Your task to perform on an android device: turn off notifications settings in the gmail app Image 0: 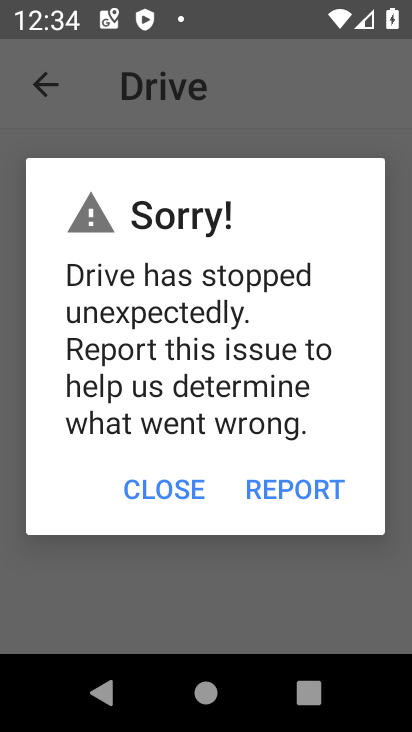
Step 0: press home button
Your task to perform on an android device: turn off notifications settings in the gmail app Image 1: 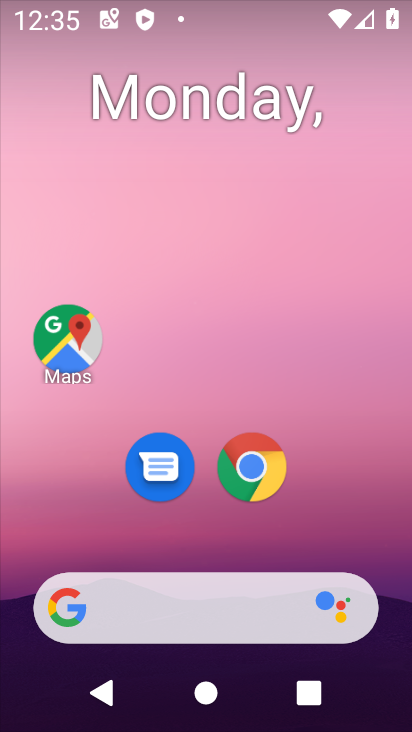
Step 1: drag from (396, 594) to (354, 97)
Your task to perform on an android device: turn off notifications settings in the gmail app Image 2: 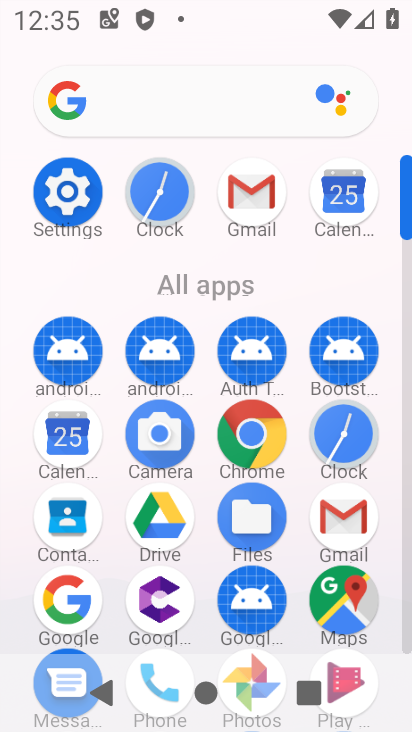
Step 2: click (404, 629)
Your task to perform on an android device: turn off notifications settings in the gmail app Image 3: 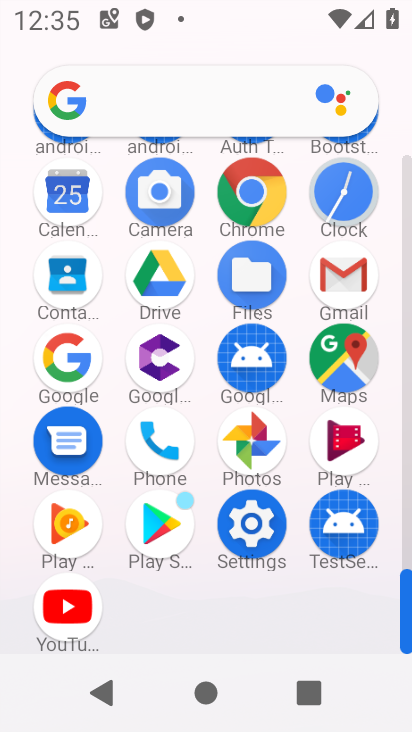
Step 3: click (341, 275)
Your task to perform on an android device: turn off notifications settings in the gmail app Image 4: 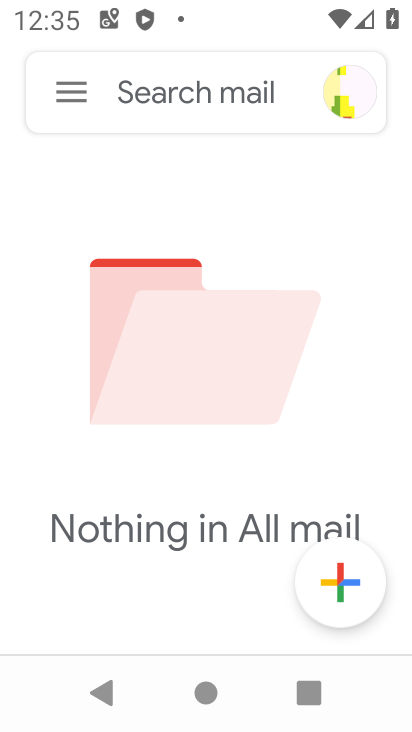
Step 4: click (71, 92)
Your task to perform on an android device: turn off notifications settings in the gmail app Image 5: 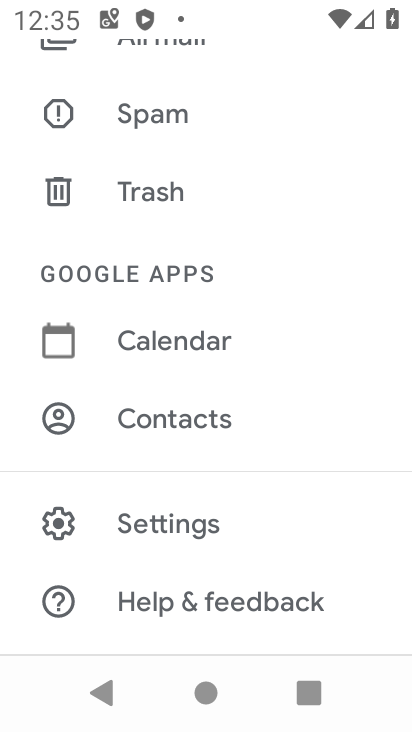
Step 5: click (140, 519)
Your task to perform on an android device: turn off notifications settings in the gmail app Image 6: 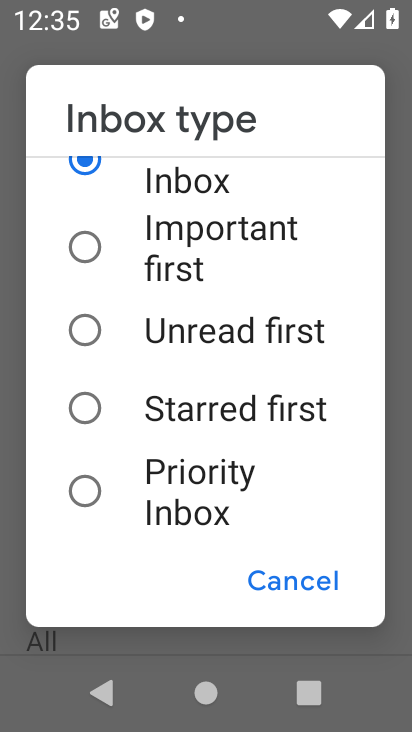
Step 6: click (284, 583)
Your task to perform on an android device: turn off notifications settings in the gmail app Image 7: 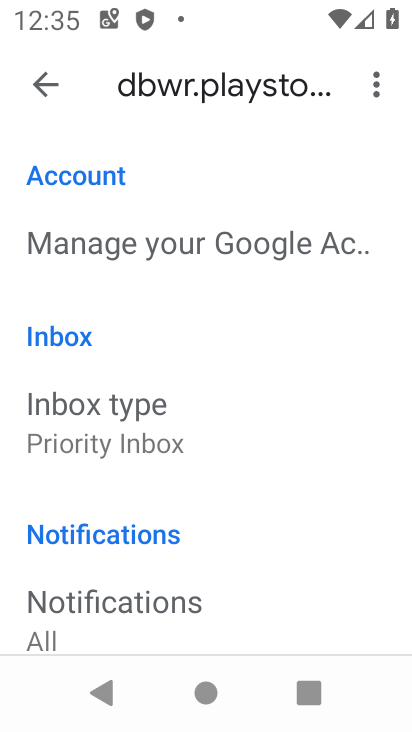
Step 7: drag from (246, 603) to (272, 215)
Your task to perform on an android device: turn off notifications settings in the gmail app Image 8: 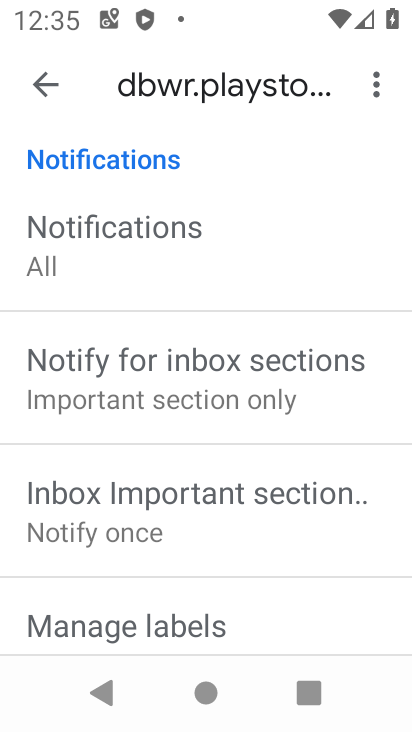
Step 8: drag from (272, 589) to (330, 173)
Your task to perform on an android device: turn off notifications settings in the gmail app Image 9: 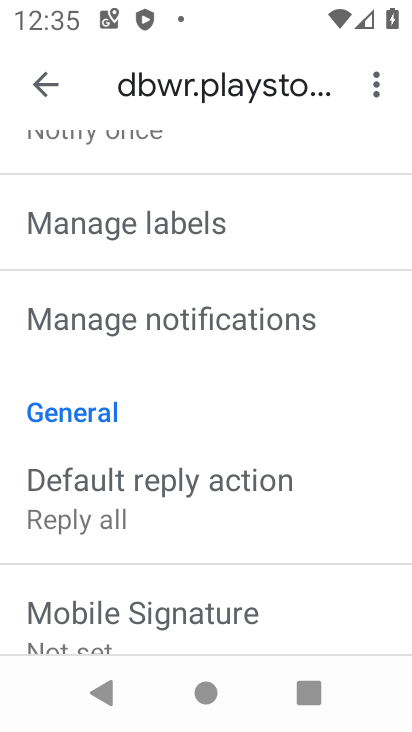
Step 9: click (160, 323)
Your task to perform on an android device: turn off notifications settings in the gmail app Image 10: 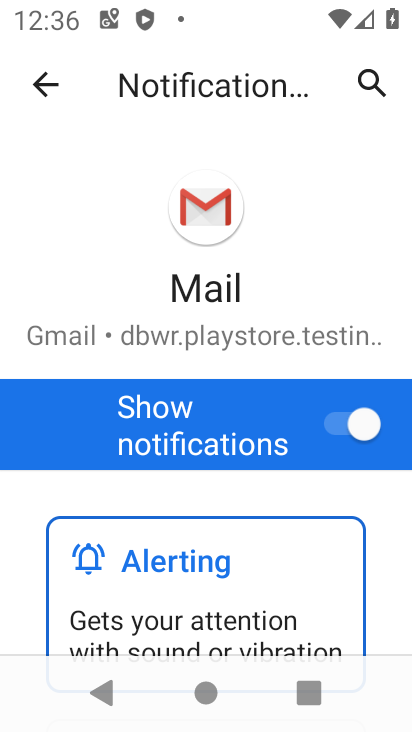
Step 10: click (333, 424)
Your task to perform on an android device: turn off notifications settings in the gmail app Image 11: 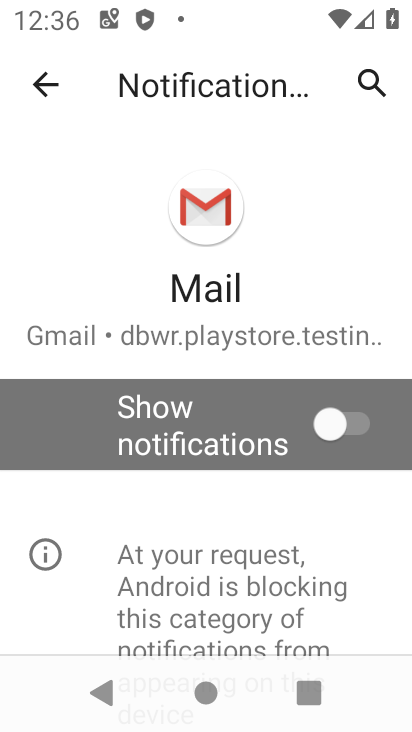
Step 11: task complete